Your task to perform on an android device: Open Google Chrome and click the shortcut for Amazon.com Image 0: 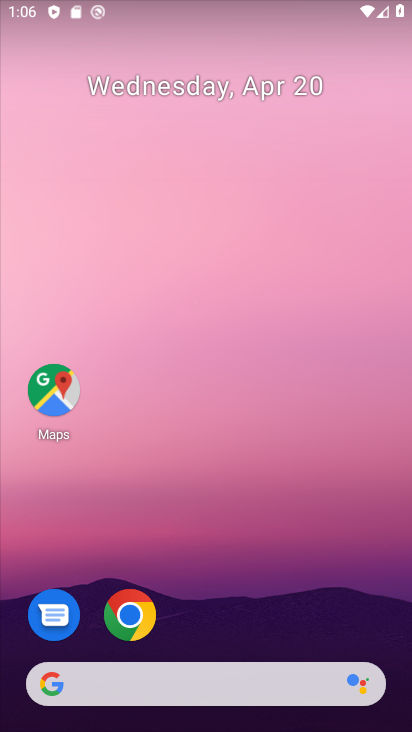
Step 0: click (130, 611)
Your task to perform on an android device: Open Google Chrome and click the shortcut for Amazon.com Image 1: 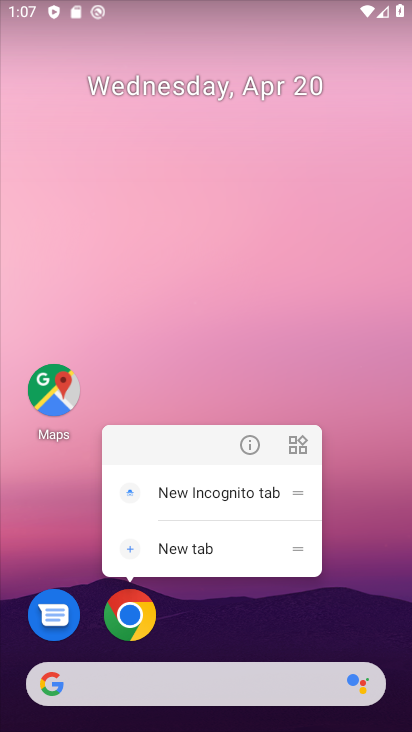
Step 1: click (130, 611)
Your task to perform on an android device: Open Google Chrome and click the shortcut for Amazon.com Image 2: 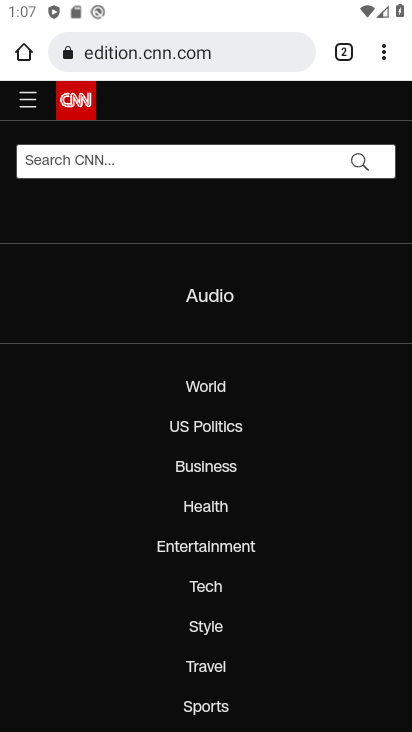
Step 2: click (379, 46)
Your task to perform on an android device: Open Google Chrome and click the shortcut for Amazon.com Image 3: 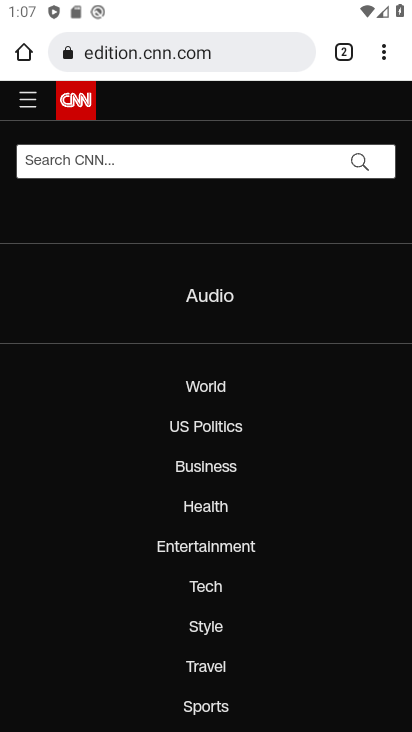
Step 3: click (379, 46)
Your task to perform on an android device: Open Google Chrome and click the shortcut for Amazon.com Image 4: 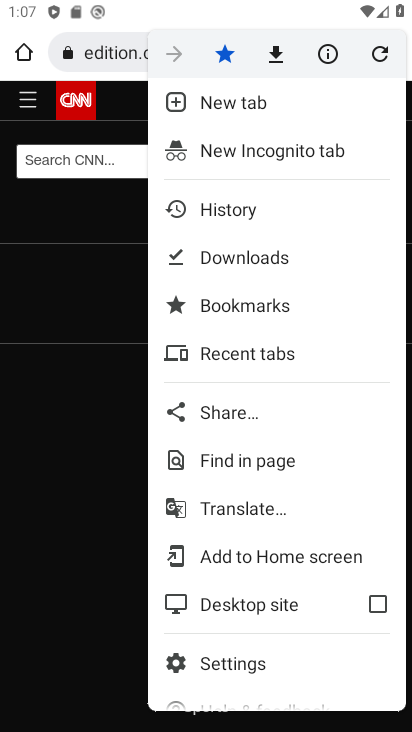
Step 4: click (96, 230)
Your task to perform on an android device: Open Google Chrome and click the shortcut for Amazon.com Image 5: 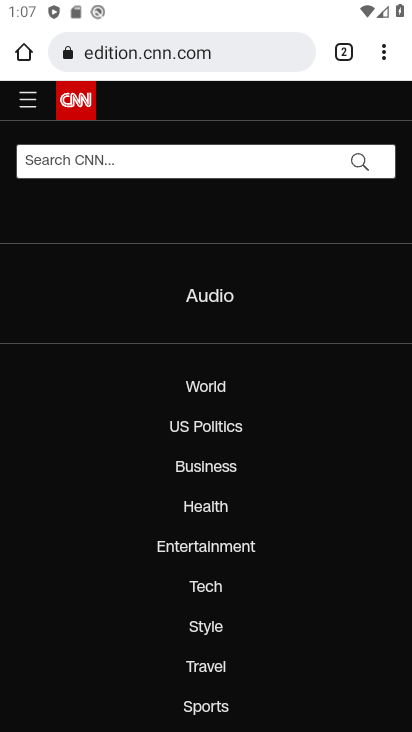
Step 5: click (380, 46)
Your task to perform on an android device: Open Google Chrome and click the shortcut for Amazon.com Image 6: 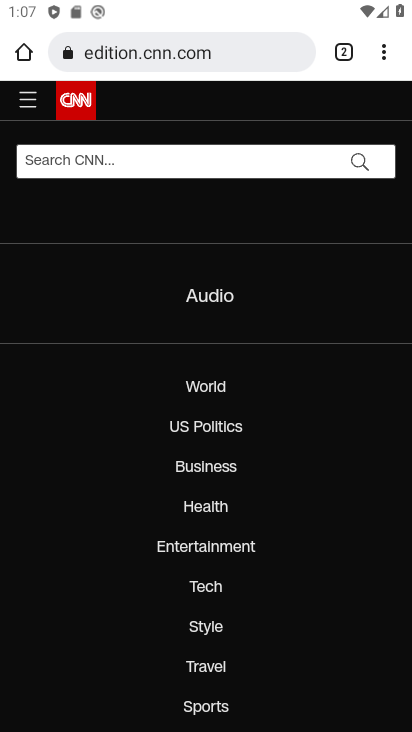
Step 6: click (385, 47)
Your task to perform on an android device: Open Google Chrome and click the shortcut for Amazon.com Image 7: 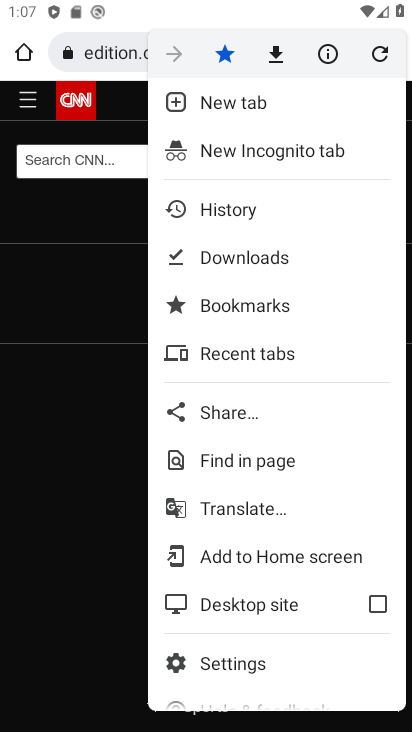
Step 7: click (216, 93)
Your task to perform on an android device: Open Google Chrome and click the shortcut for Amazon.com Image 8: 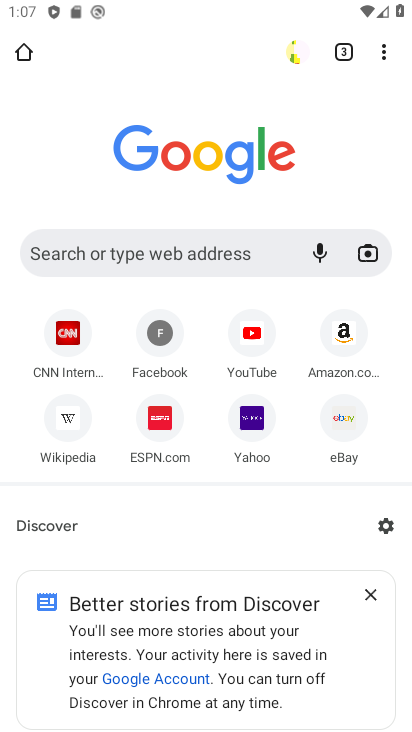
Step 8: click (346, 313)
Your task to perform on an android device: Open Google Chrome and click the shortcut for Amazon.com Image 9: 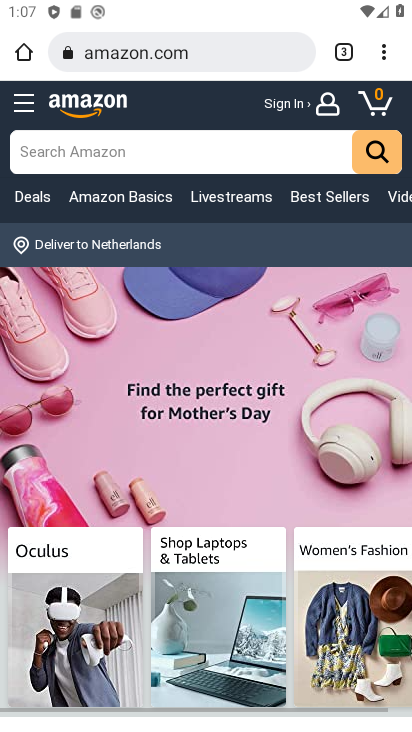
Step 9: task complete